Your task to perform on an android device: turn off javascript in the chrome app Image 0: 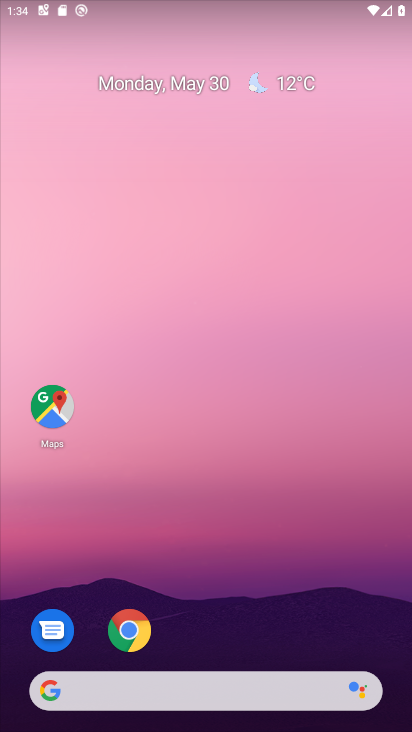
Step 0: click (144, 625)
Your task to perform on an android device: turn off javascript in the chrome app Image 1: 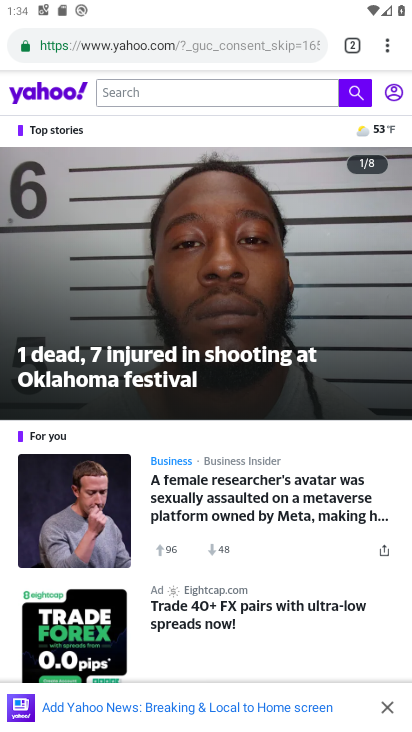
Step 1: click (386, 47)
Your task to perform on an android device: turn off javascript in the chrome app Image 2: 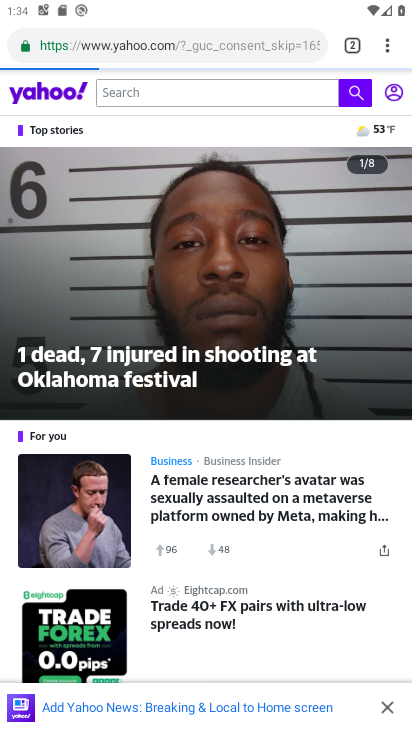
Step 2: drag from (386, 47) to (239, 552)
Your task to perform on an android device: turn off javascript in the chrome app Image 3: 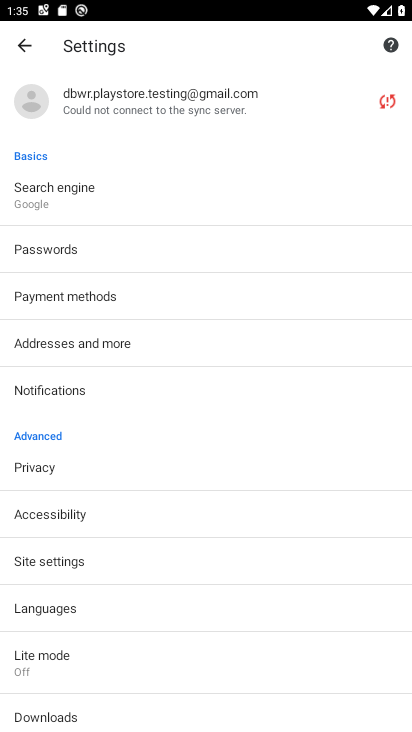
Step 3: click (171, 564)
Your task to perform on an android device: turn off javascript in the chrome app Image 4: 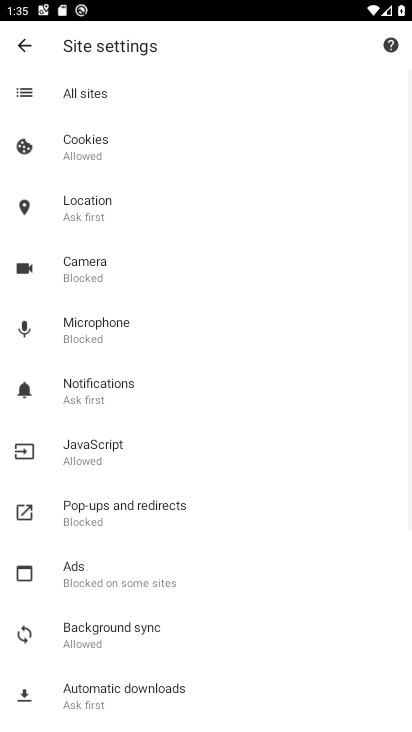
Step 4: click (131, 446)
Your task to perform on an android device: turn off javascript in the chrome app Image 5: 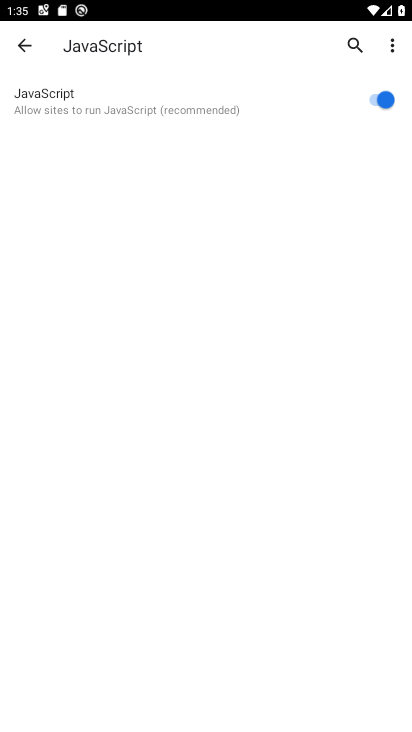
Step 5: click (378, 96)
Your task to perform on an android device: turn off javascript in the chrome app Image 6: 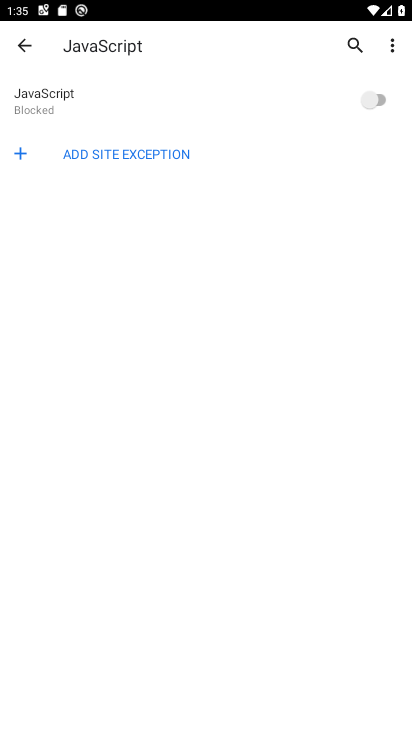
Step 6: task complete